Your task to perform on an android device: Go to Wikipedia Image 0: 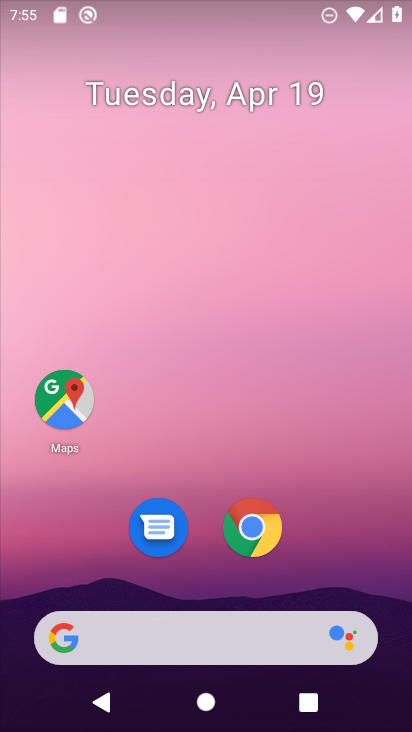
Step 0: click (254, 533)
Your task to perform on an android device: Go to Wikipedia Image 1: 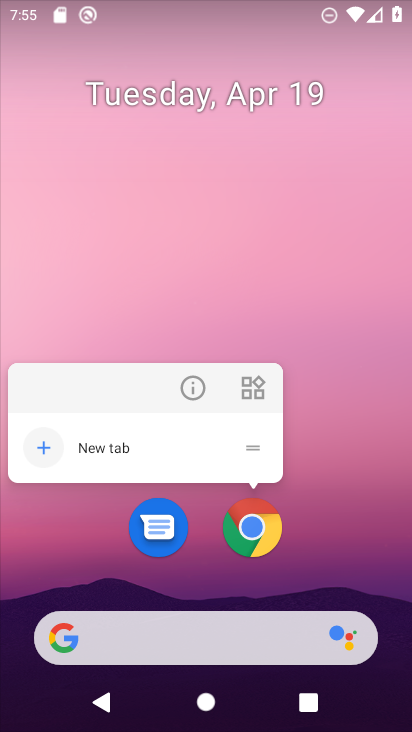
Step 1: click (259, 539)
Your task to perform on an android device: Go to Wikipedia Image 2: 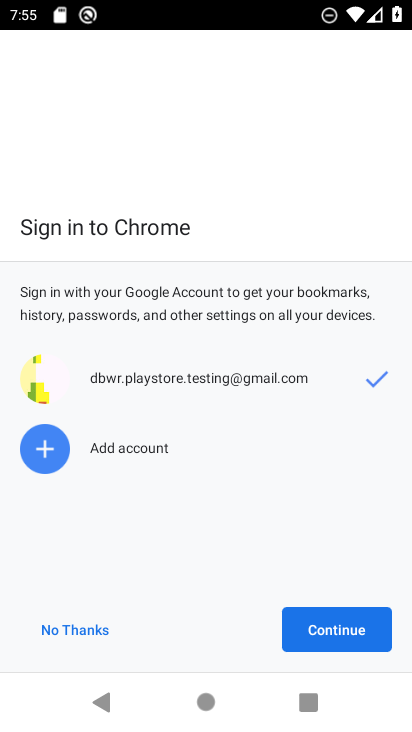
Step 2: click (347, 625)
Your task to perform on an android device: Go to Wikipedia Image 3: 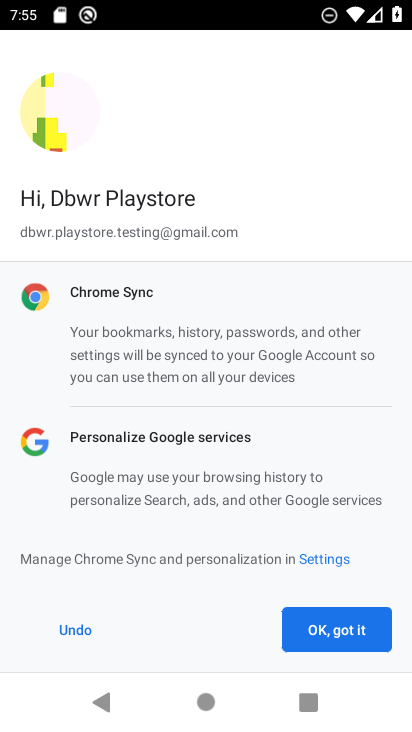
Step 3: click (347, 625)
Your task to perform on an android device: Go to Wikipedia Image 4: 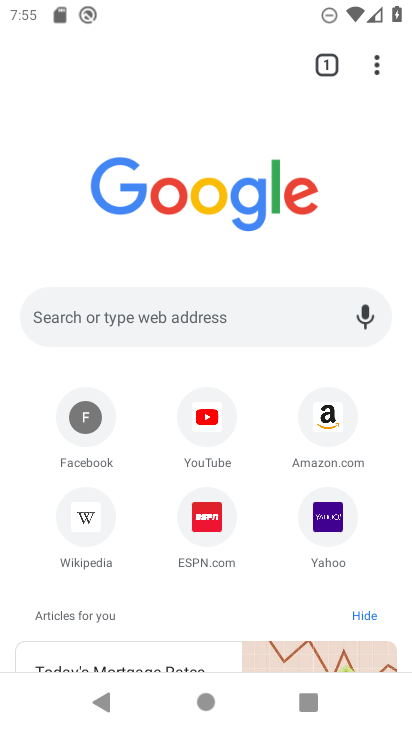
Step 4: click (86, 527)
Your task to perform on an android device: Go to Wikipedia Image 5: 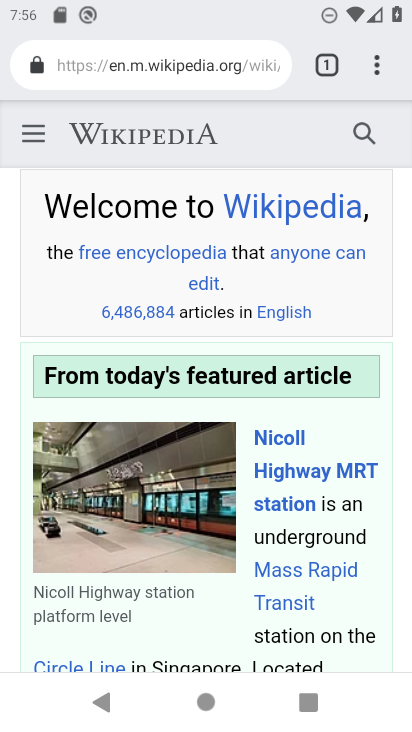
Step 5: task complete